Your task to perform on an android device: Open sound settings Image 0: 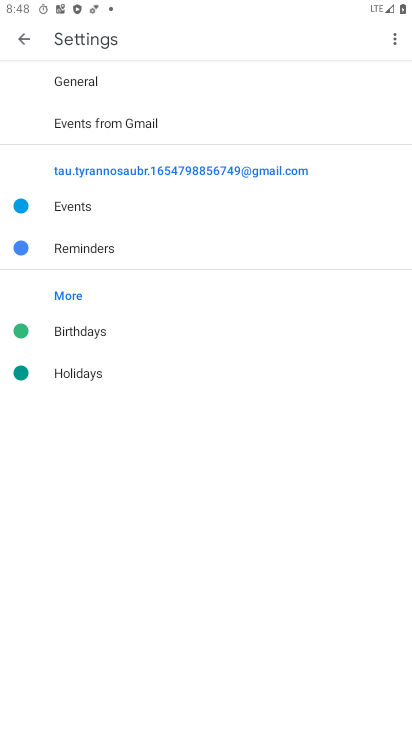
Step 0: press home button
Your task to perform on an android device: Open sound settings Image 1: 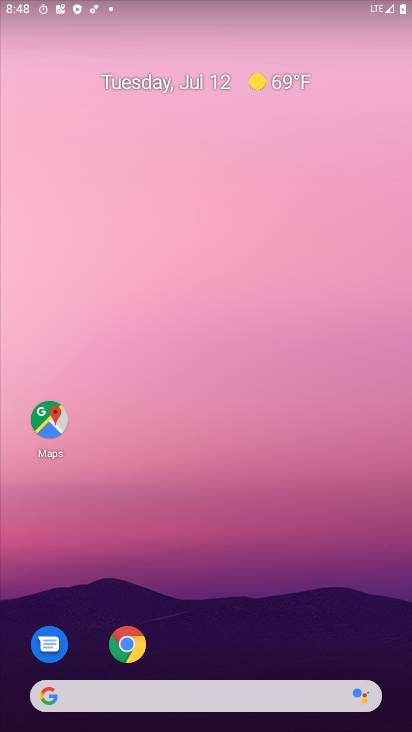
Step 1: drag from (227, 662) to (246, 71)
Your task to perform on an android device: Open sound settings Image 2: 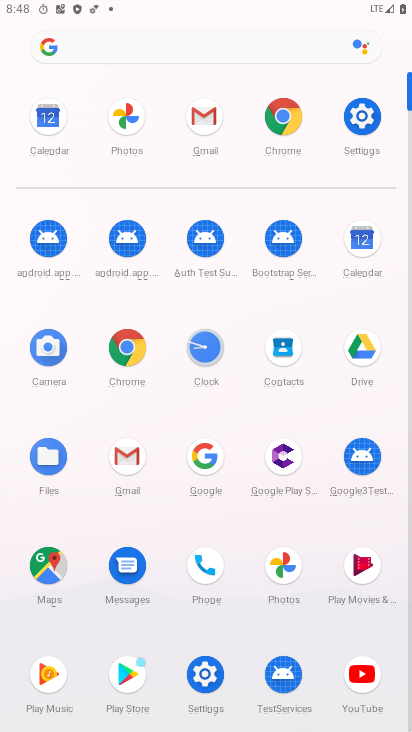
Step 2: click (358, 113)
Your task to perform on an android device: Open sound settings Image 3: 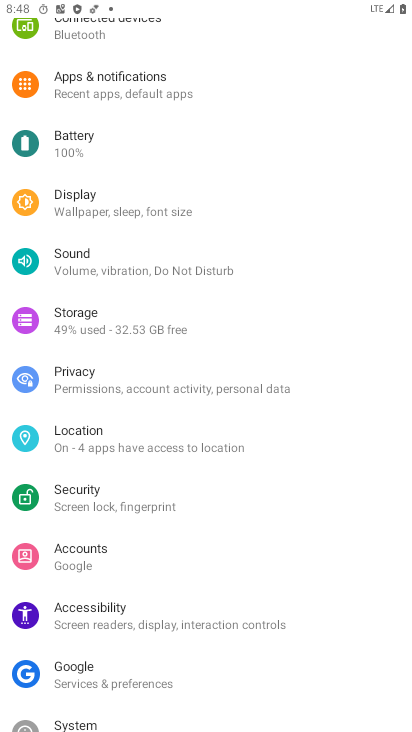
Step 3: click (103, 255)
Your task to perform on an android device: Open sound settings Image 4: 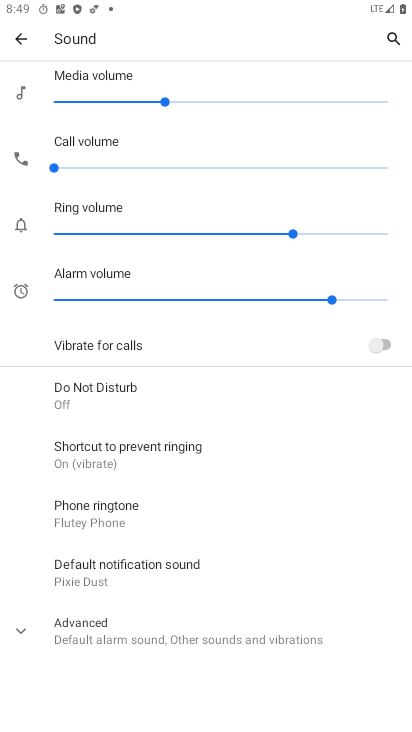
Step 4: click (24, 628)
Your task to perform on an android device: Open sound settings Image 5: 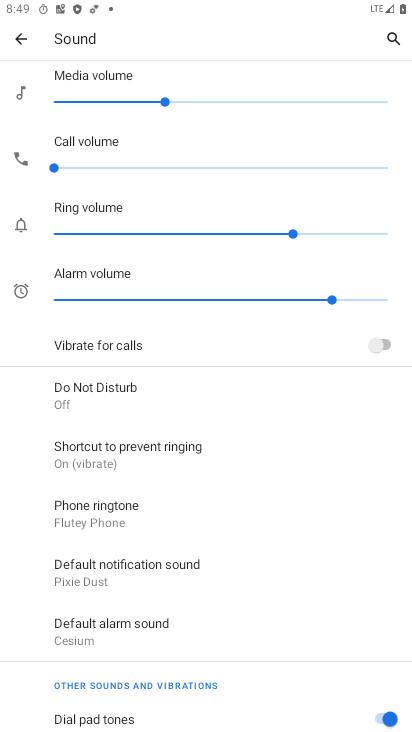
Step 5: task complete